Your task to perform on an android device: see tabs open on other devices in the chrome app Image 0: 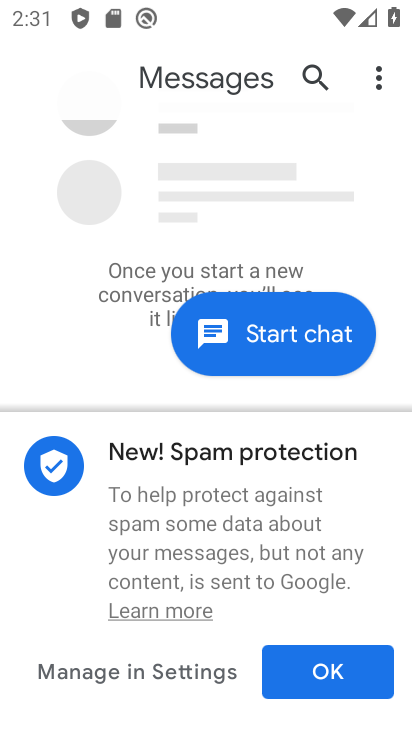
Step 0: press back button
Your task to perform on an android device: see tabs open on other devices in the chrome app Image 1: 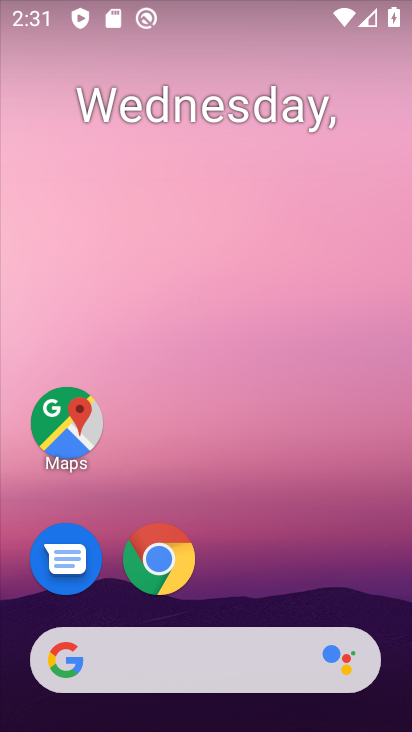
Step 1: click (161, 561)
Your task to perform on an android device: see tabs open on other devices in the chrome app Image 2: 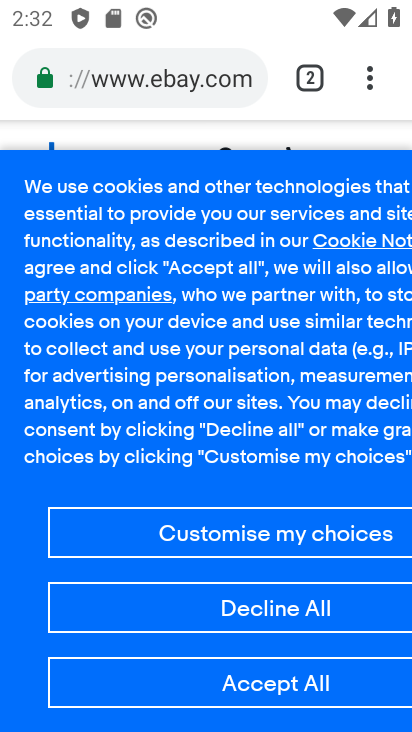
Step 2: task complete